Your task to perform on an android device: turn off location Image 0: 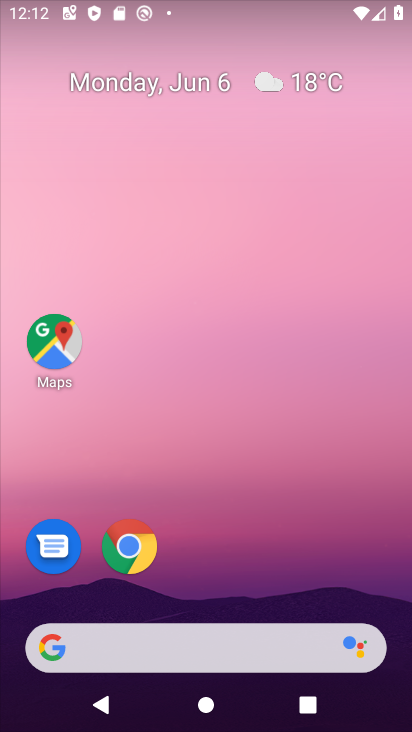
Step 0: drag from (177, 682) to (174, 48)
Your task to perform on an android device: turn off location Image 1: 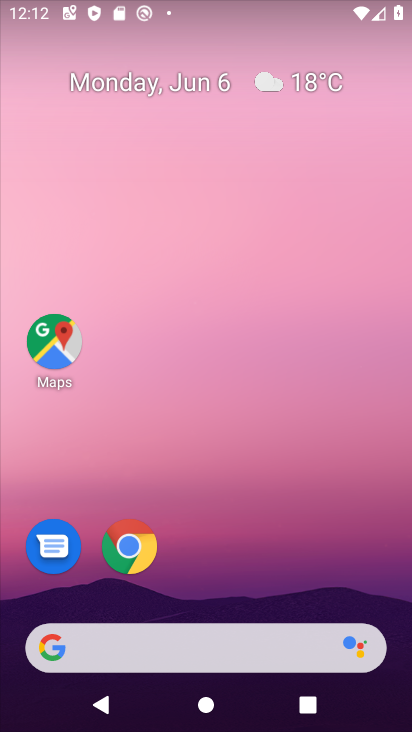
Step 1: drag from (169, 720) to (159, 51)
Your task to perform on an android device: turn off location Image 2: 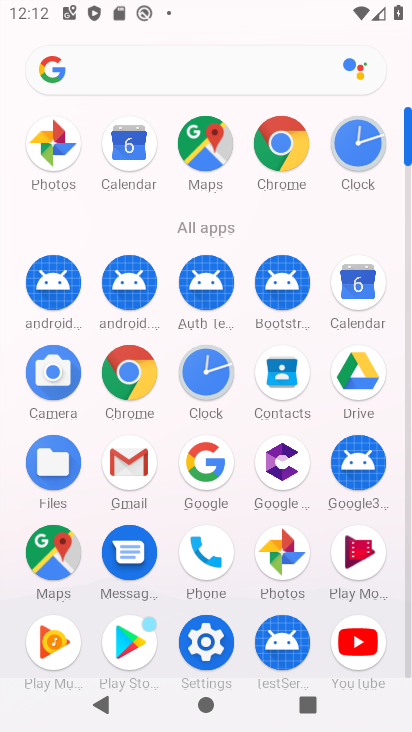
Step 2: click (215, 653)
Your task to perform on an android device: turn off location Image 3: 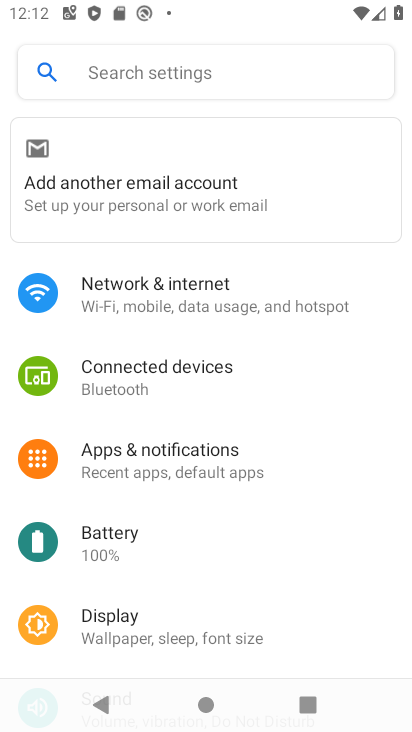
Step 3: drag from (199, 610) to (133, 334)
Your task to perform on an android device: turn off location Image 4: 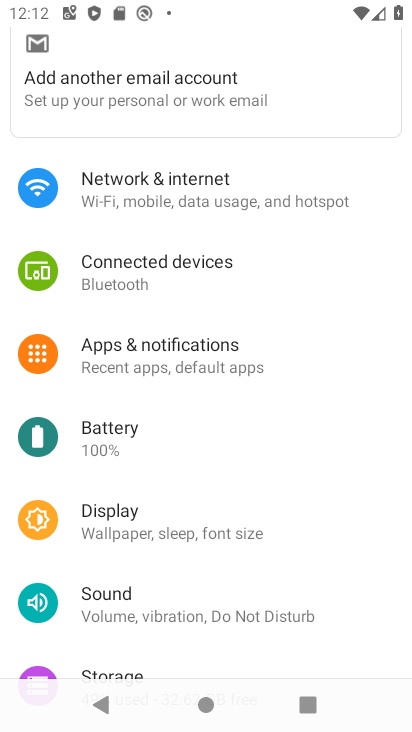
Step 4: drag from (232, 624) to (224, 181)
Your task to perform on an android device: turn off location Image 5: 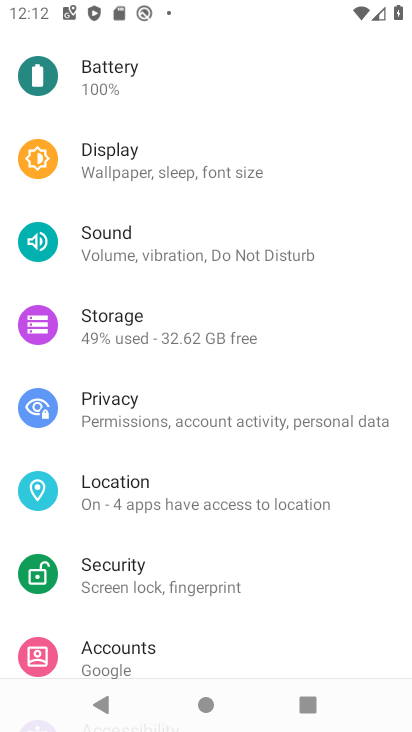
Step 5: click (167, 495)
Your task to perform on an android device: turn off location Image 6: 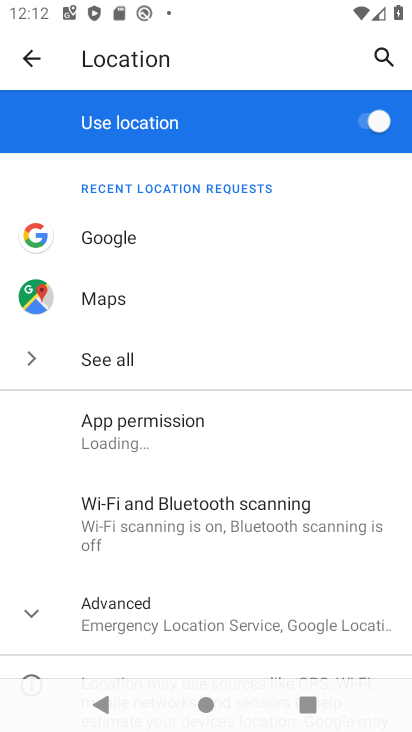
Step 6: click (371, 127)
Your task to perform on an android device: turn off location Image 7: 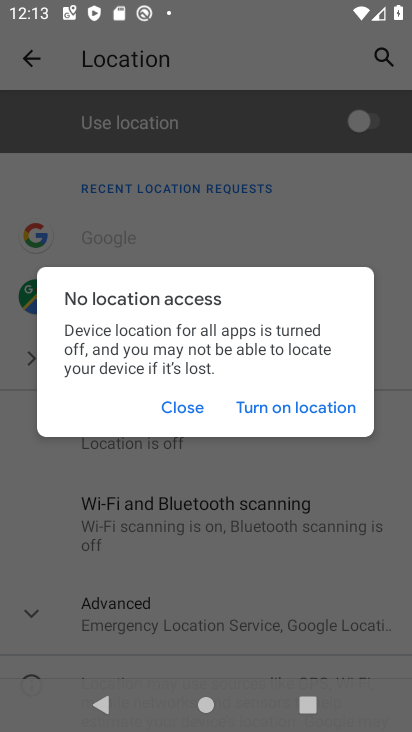
Step 7: click (171, 402)
Your task to perform on an android device: turn off location Image 8: 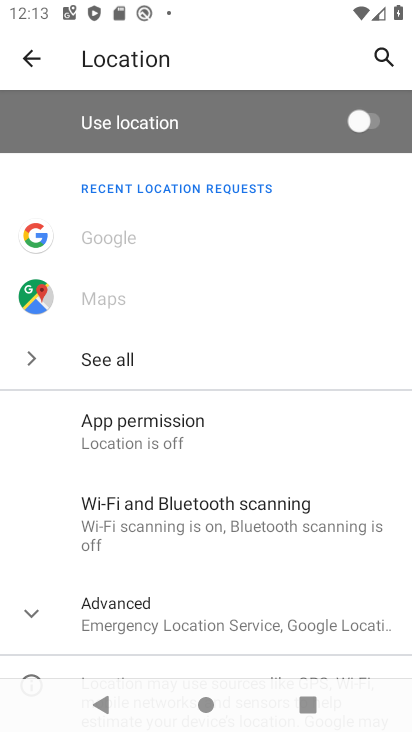
Step 8: task complete